Your task to perform on an android device: turn on bluetooth scan Image 0: 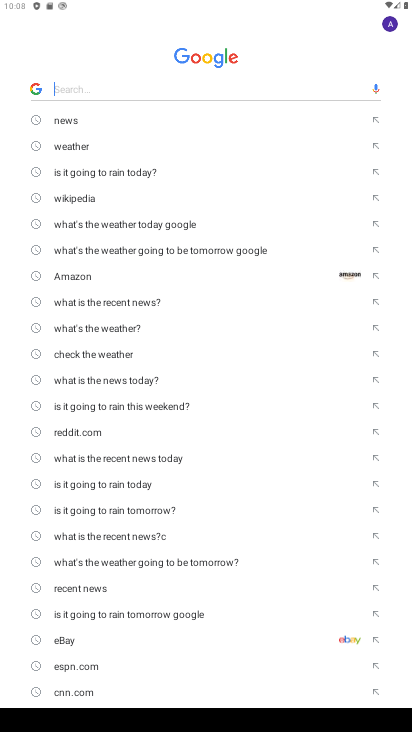
Step 0: press home button
Your task to perform on an android device: turn on bluetooth scan Image 1: 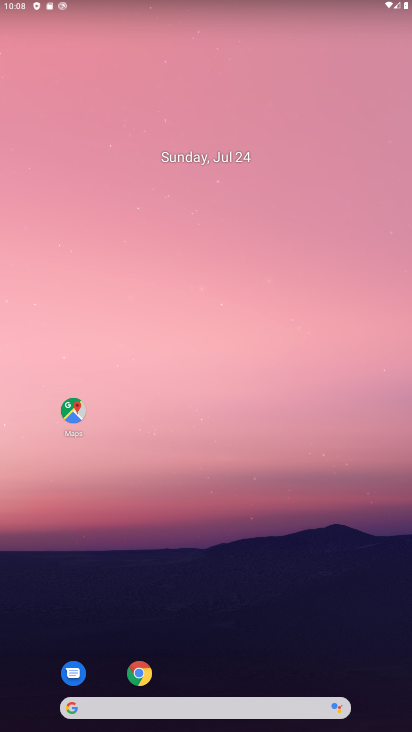
Step 1: drag from (273, 623) to (205, 231)
Your task to perform on an android device: turn on bluetooth scan Image 2: 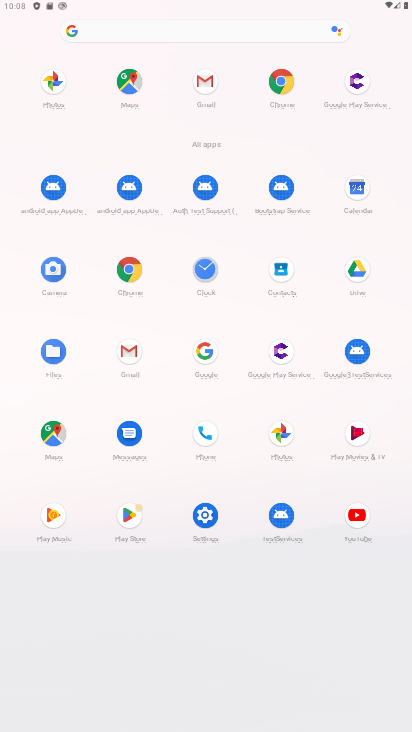
Step 2: click (201, 514)
Your task to perform on an android device: turn on bluetooth scan Image 3: 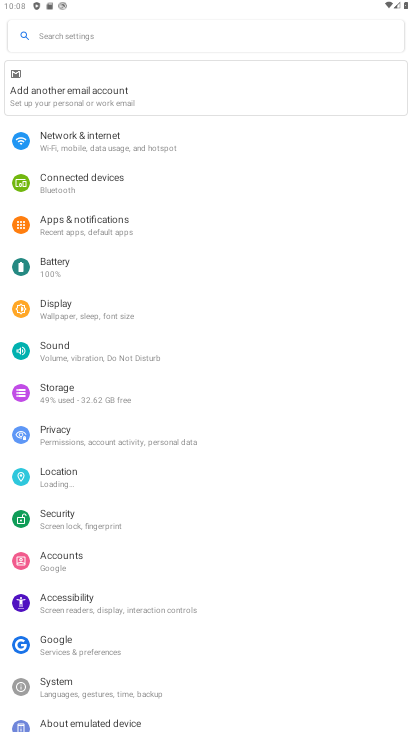
Step 3: click (119, 142)
Your task to perform on an android device: turn on bluetooth scan Image 4: 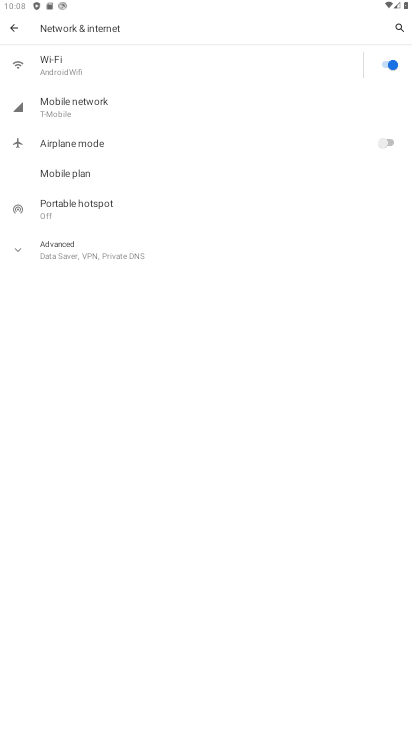
Step 4: task complete